Your task to perform on an android device: turn off priority inbox in the gmail app Image 0: 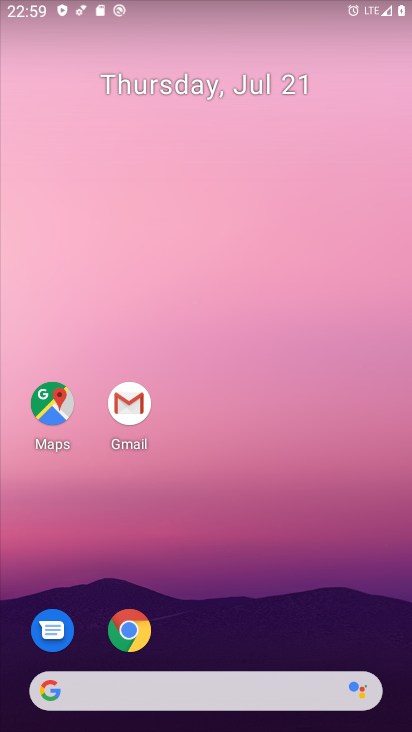
Step 0: drag from (265, 695) to (197, 316)
Your task to perform on an android device: turn off priority inbox in the gmail app Image 1: 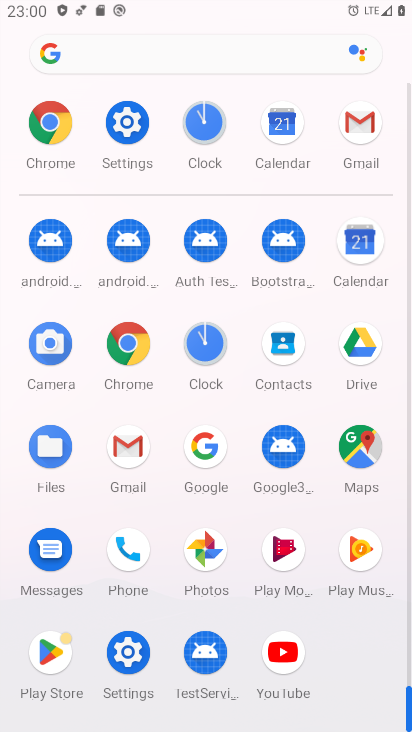
Step 1: click (128, 448)
Your task to perform on an android device: turn off priority inbox in the gmail app Image 2: 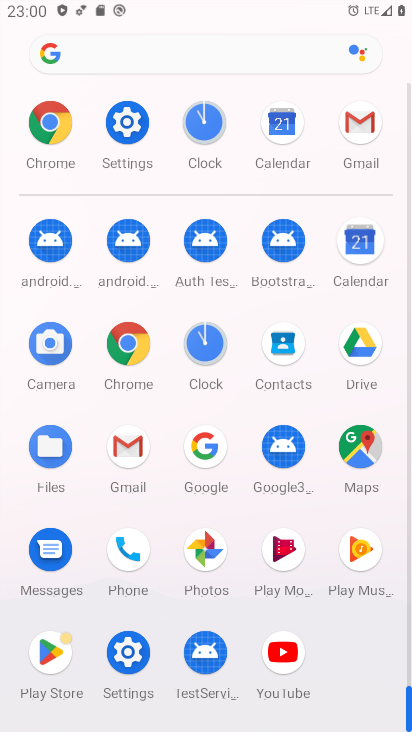
Step 2: click (128, 448)
Your task to perform on an android device: turn off priority inbox in the gmail app Image 3: 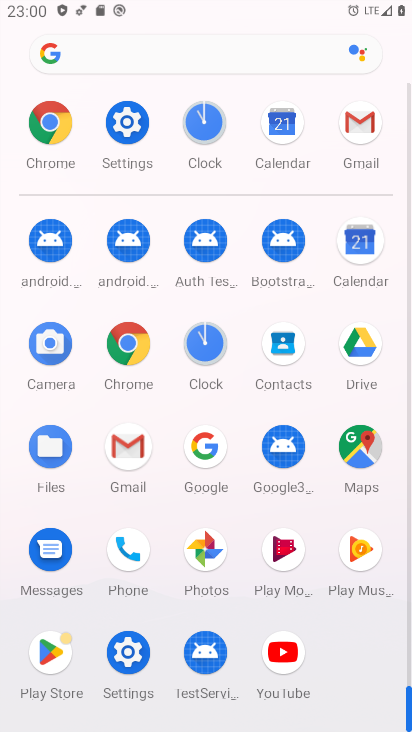
Step 3: click (128, 448)
Your task to perform on an android device: turn off priority inbox in the gmail app Image 4: 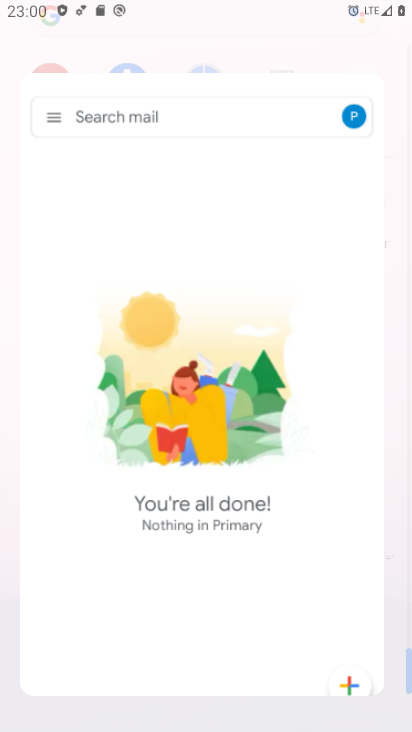
Step 4: click (128, 448)
Your task to perform on an android device: turn off priority inbox in the gmail app Image 5: 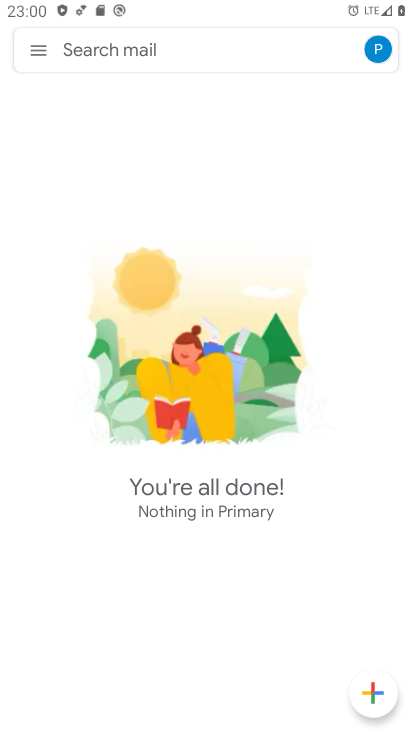
Step 5: click (39, 49)
Your task to perform on an android device: turn off priority inbox in the gmail app Image 6: 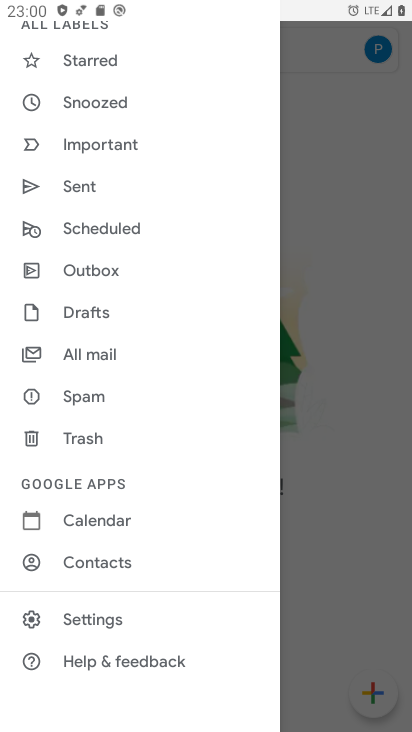
Step 6: click (100, 611)
Your task to perform on an android device: turn off priority inbox in the gmail app Image 7: 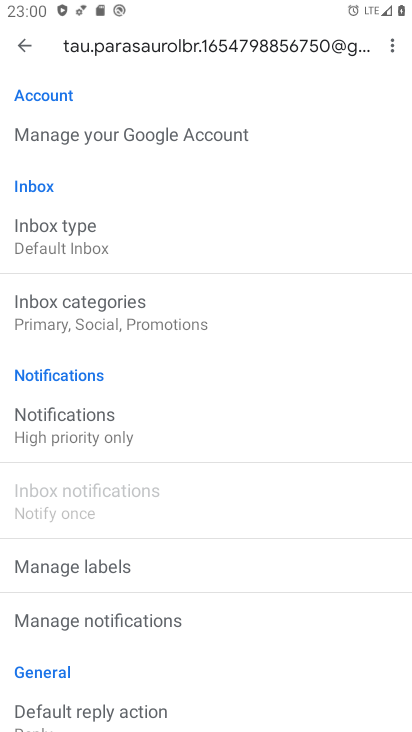
Step 7: drag from (62, 557) to (108, 255)
Your task to perform on an android device: turn off priority inbox in the gmail app Image 8: 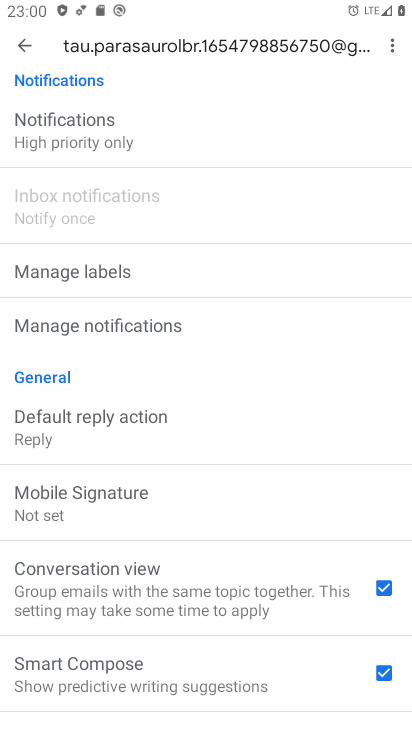
Step 8: drag from (105, 601) to (84, 213)
Your task to perform on an android device: turn off priority inbox in the gmail app Image 9: 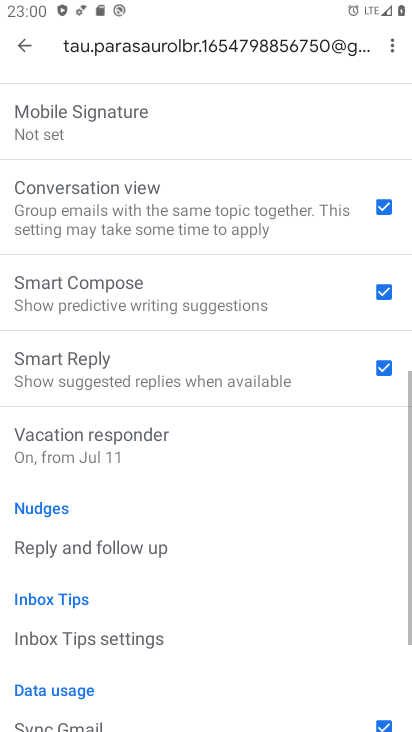
Step 9: drag from (85, 161) to (106, 515)
Your task to perform on an android device: turn off priority inbox in the gmail app Image 10: 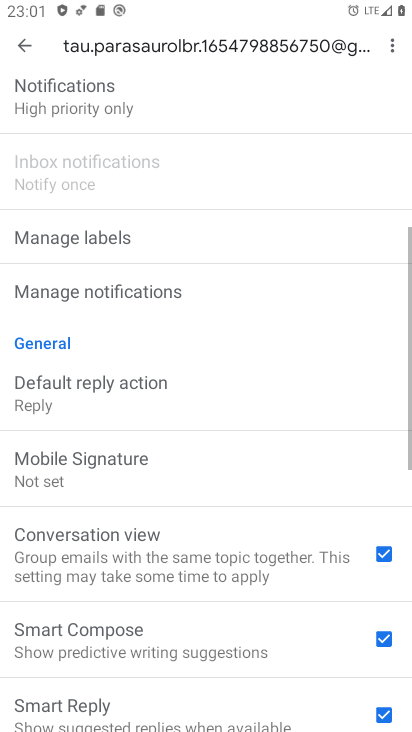
Step 10: drag from (102, 437) to (103, 635)
Your task to perform on an android device: turn off priority inbox in the gmail app Image 11: 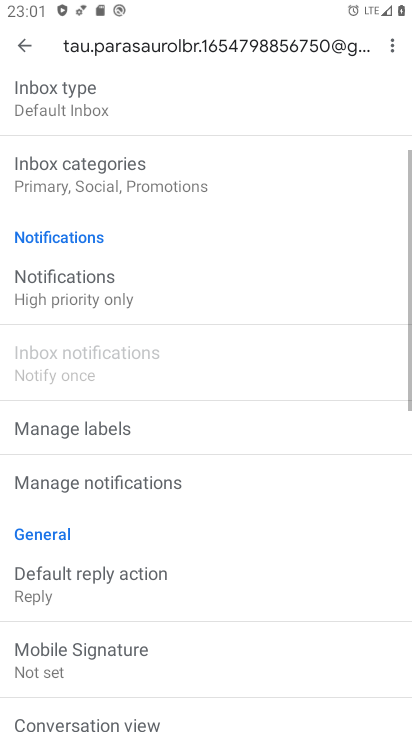
Step 11: drag from (116, 371) to (116, 532)
Your task to perform on an android device: turn off priority inbox in the gmail app Image 12: 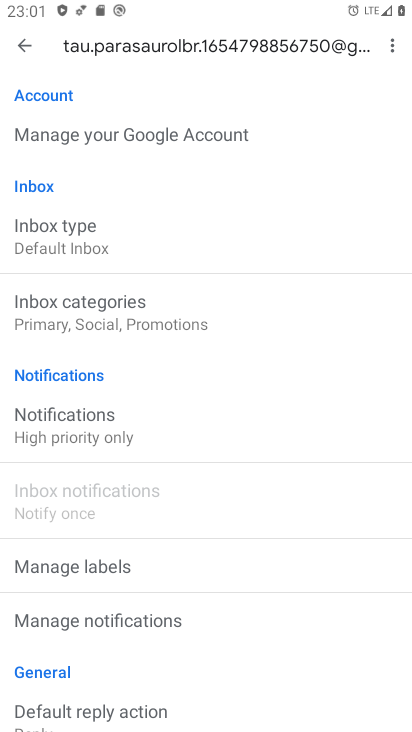
Step 12: click (46, 242)
Your task to perform on an android device: turn off priority inbox in the gmail app Image 13: 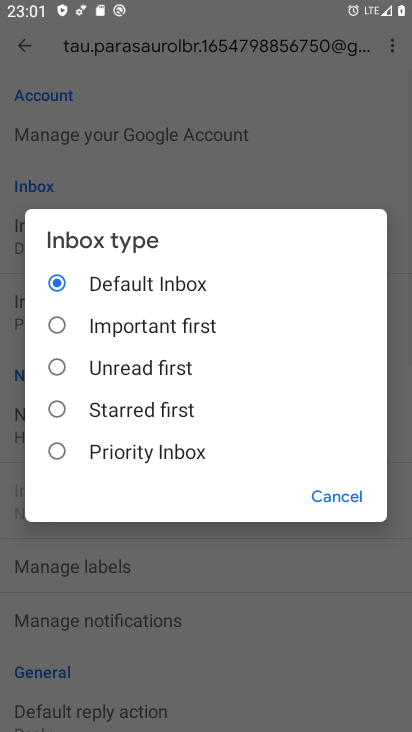
Step 13: click (376, 164)
Your task to perform on an android device: turn off priority inbox in the gmail app Image 14: 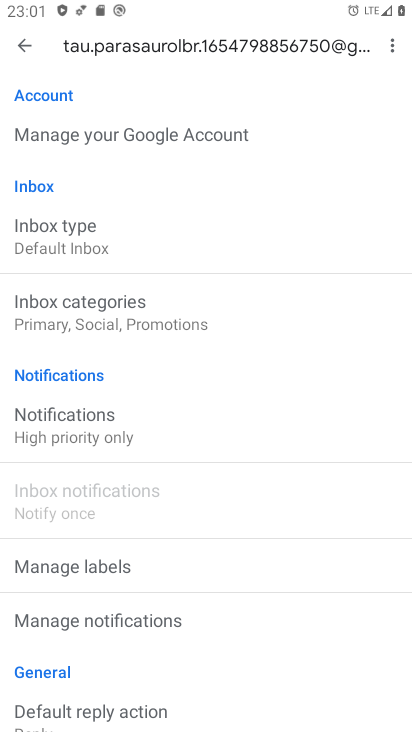
Step 14: task complete